Your task to perform on an android device: toggle show notifications on the lock screen Image 0: 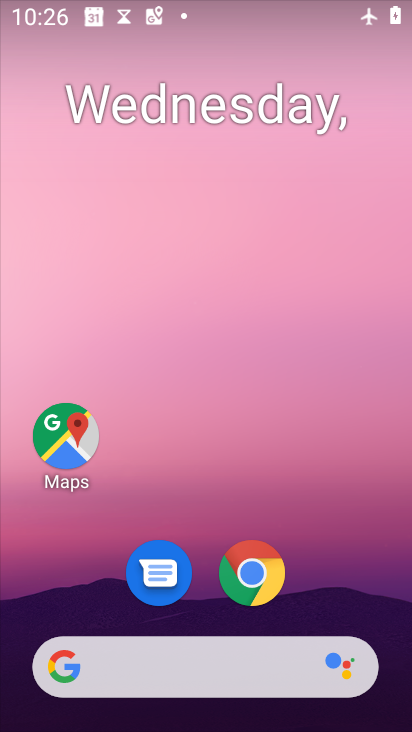
Step 0: drag from (337, 571) to (339, 328)
Your task to perform on an android device: toggle show notifications on the lock screen Image 1: 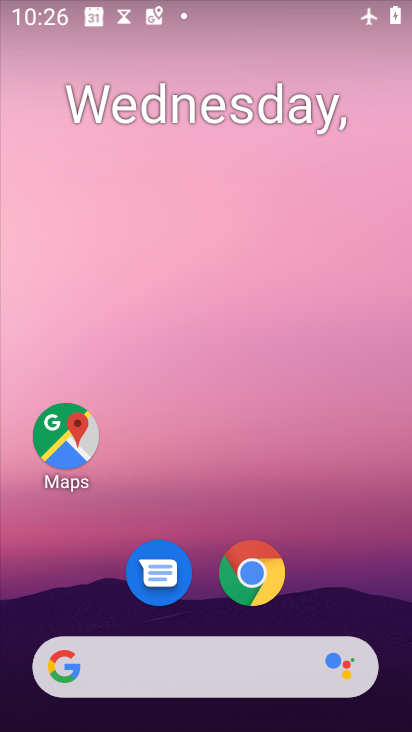
Step 1: drag from (334, 595) to (392, 253)
Your task to perform on an android device: toggle show notifications on the lock screen Image 2: 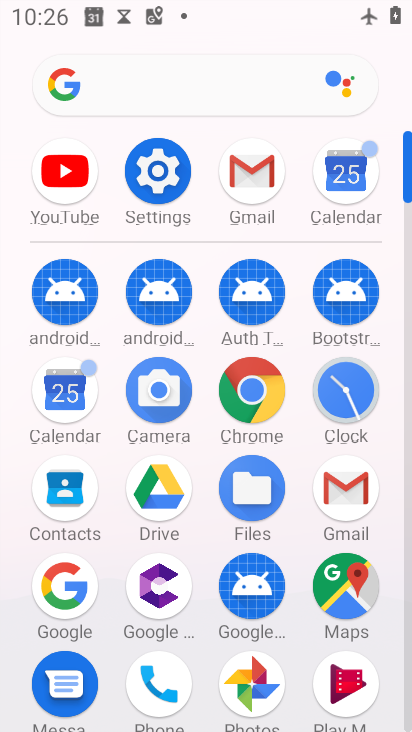
Step 2: click (156, 169)
Your task to perform on an android device: toggle show notifications on the lock screen Image 3: 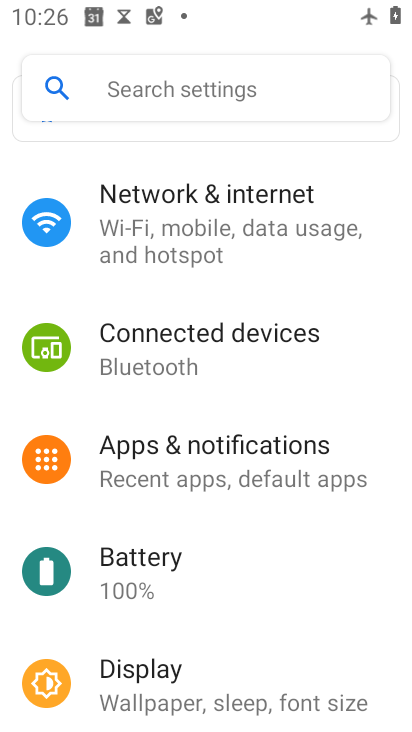
Step 3: click (190, 456)
Your task to perform on an android device: toggle show notifications on the lock screen Image 4: 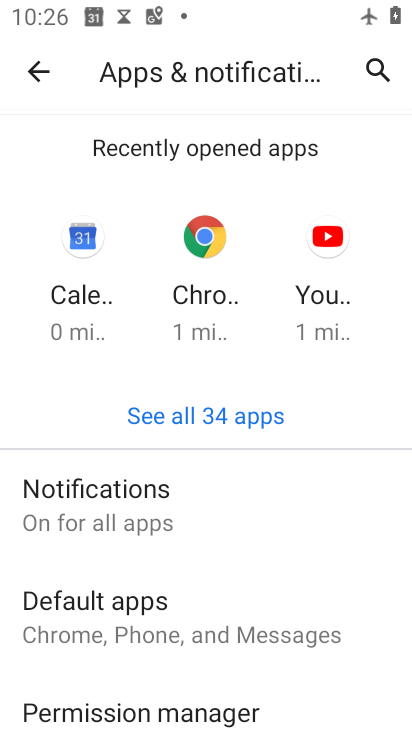
Step 4: click (173, 521)
Your task to perform on an android device: toggle show notifications on the lock screen Image 5: 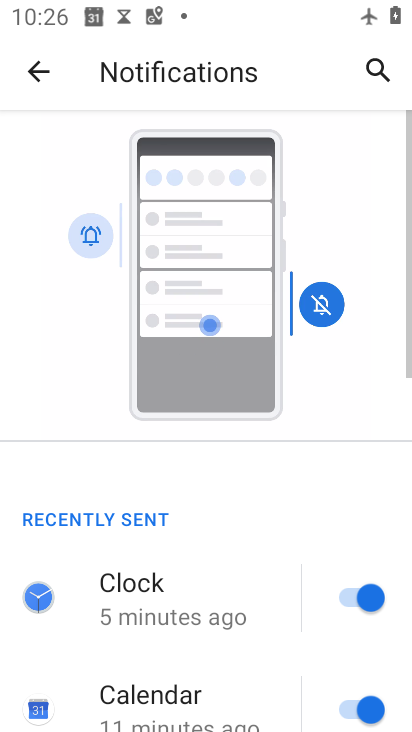
Step 5: drag from (210, 572) to (244, 291)
Your task to perform on an android device: toggle show notifications on the lock screen Image 6: 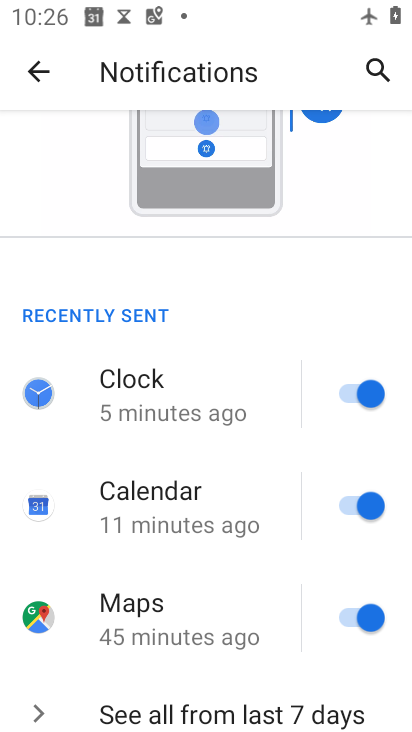
Step 6: drag from (211, 628) to (253, 285)
Your task to perform on an android device: toggle show notifications on the lock screen Image 7: 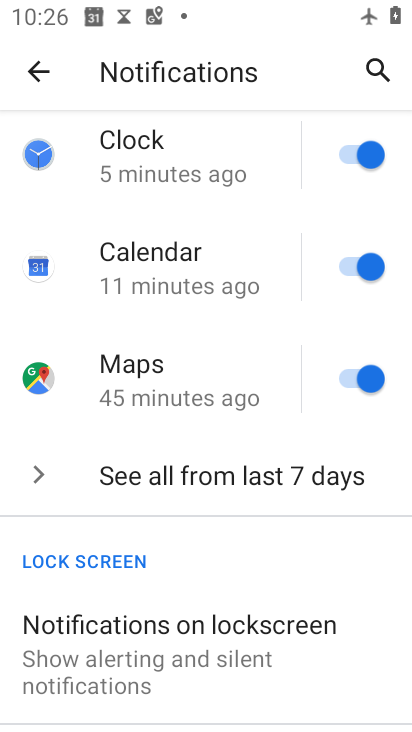
Step 7: click (213, 633)
Your task to perform on an android device: toggle show notifications on the lock screen Image 8: 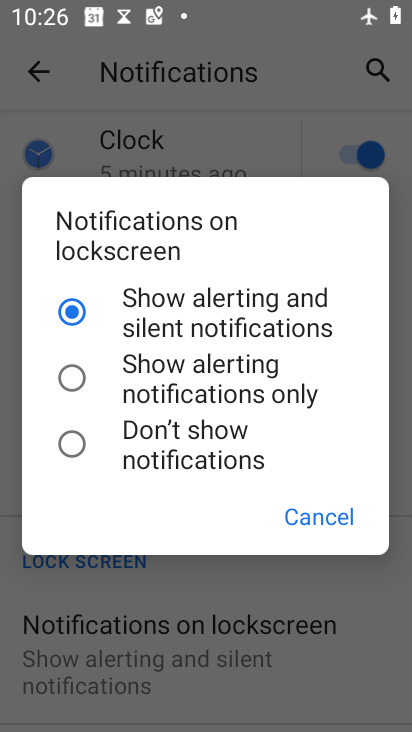
Step 8: click (147, 452)
Your task to perform on an android device: toggle show notifications on the lock screen Image 9: 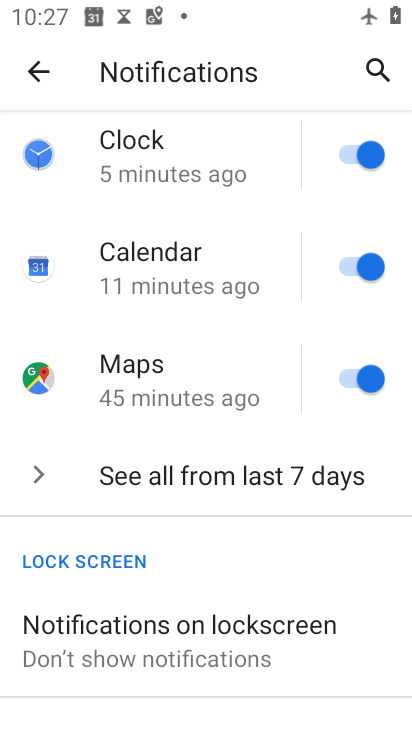
Step 9: task complete